Your task to perform on an android device: toggle show notifications on the lock screen Image 0: 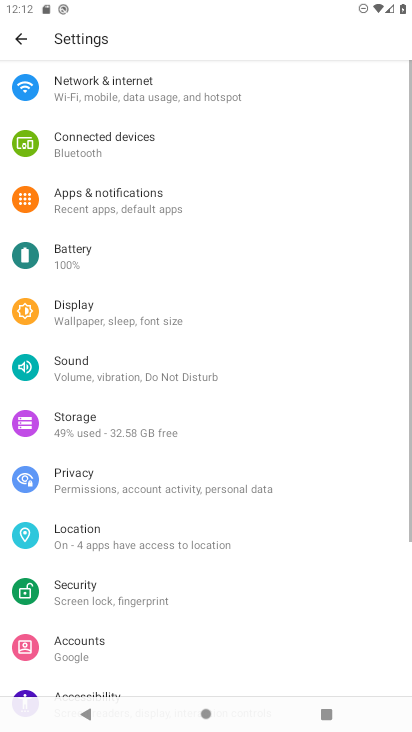
Step 0: press home button
Your task to perform on an android device: toggle show notifications on the lock screen Image 1: 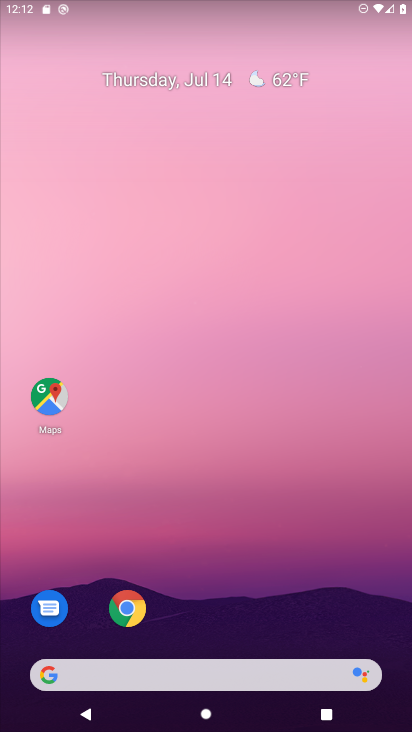
Step 1: drag from (235, 725) to (224, 187)
Your task to perform on an android device: toggle show notifications on the lock screen Image 2: 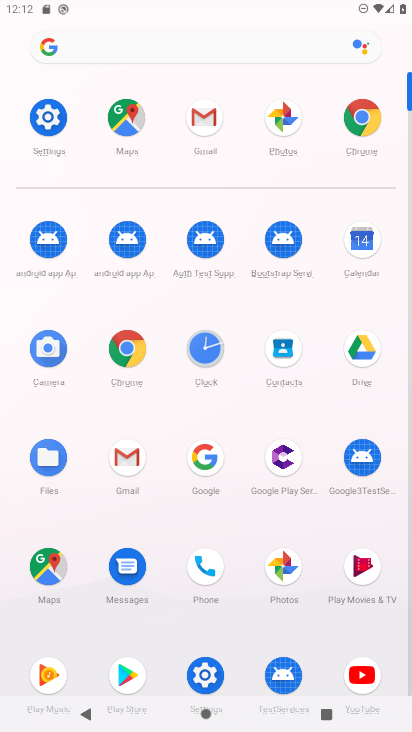
Step 2: click (44, 127)
Your task to perform on an android device: toggle show notifications on the lock screen Image 3: 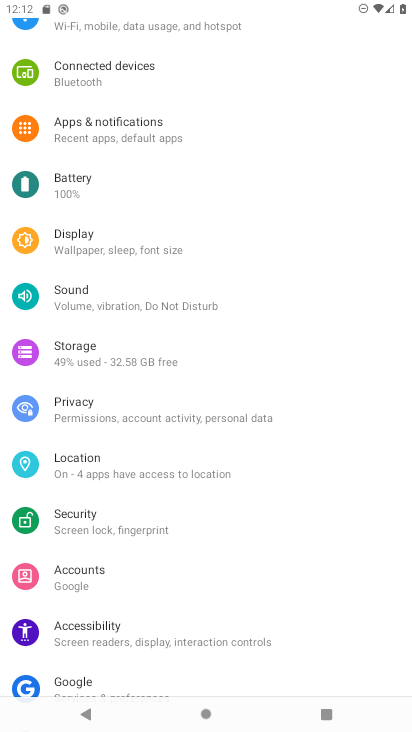
Step 3: click (102, 139)
Your task to perform on an android device: toggle show notifications on the lock screen Image 4: 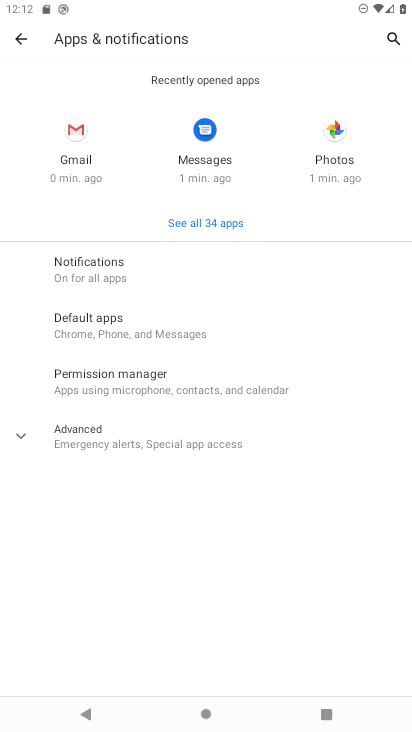
Step 4: click (89, 267)
Your task to perform on an android device: toggle show notifications on the lock screen Image 5: 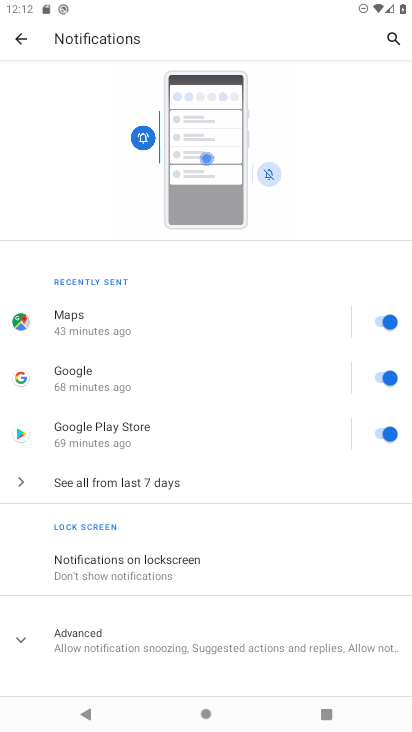
Step 5: click (139, 570)
Your task to perform on an android device: toggle show notifications on the lock screen Image 6: 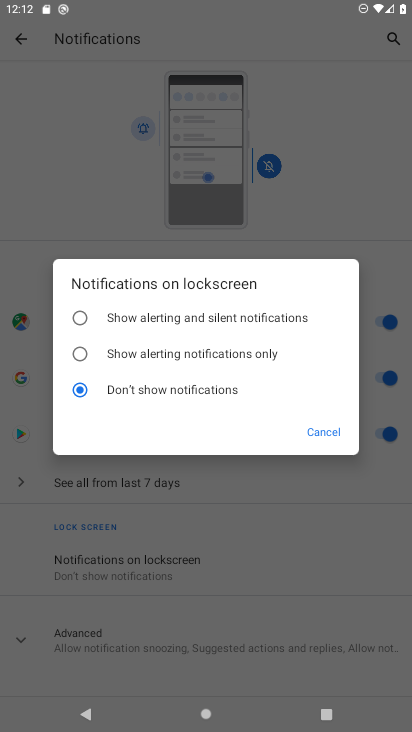
Step 6: click (90, 313)
Your task to perform on an android device: toggle show notifications on the lock screen Image 7: 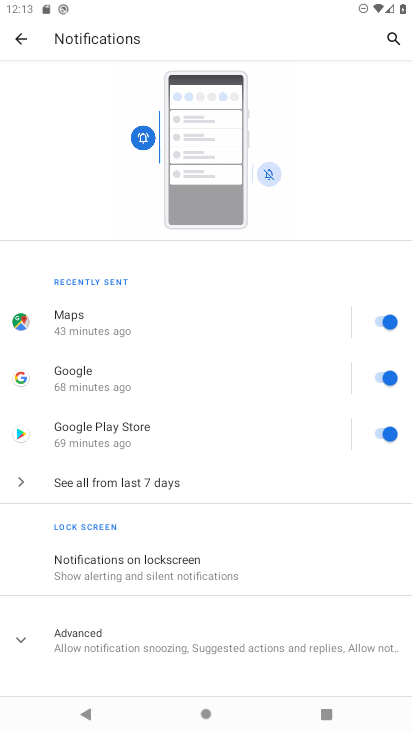
Step 7: task complete